Your task to perform on an android device: Look up the new steph curry shoes Image 0: 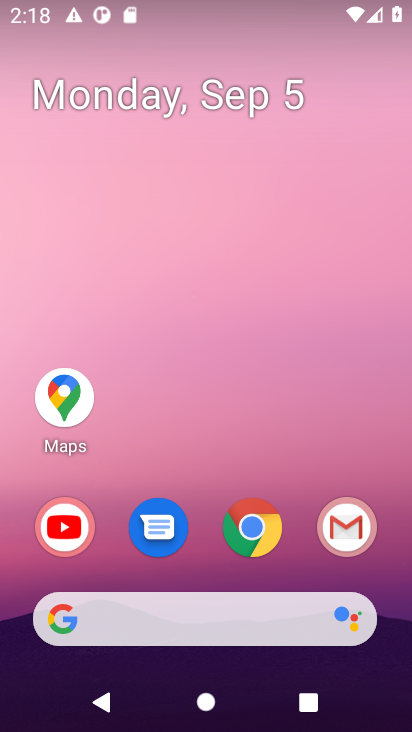
Step 0: click (244, 529)
Your task to perform on an android device: Look up the new steph curry shoes Image 1: 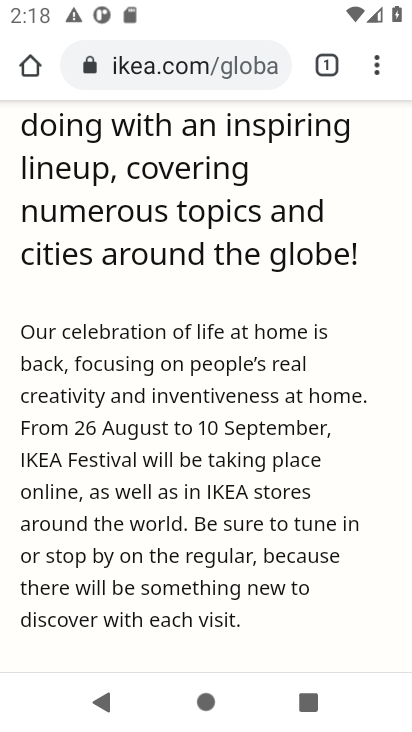
Step 1: click (253, 61)
Your task to perform on an android device: Look up the new steph curry shoes Image 2: 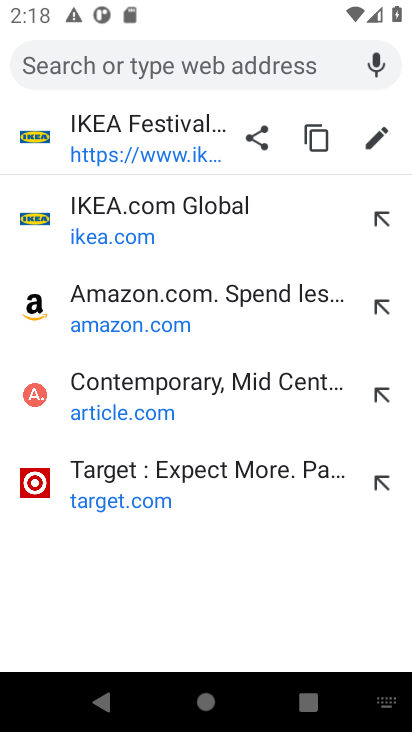
Step 2: type "the new steph curry shoes"
Your task to perform on an android device: Look up the new steph curry shoes Image 3: 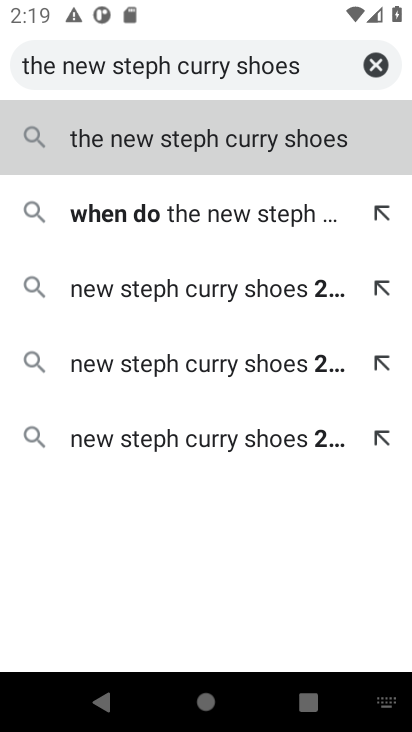
Step 3: click (268, 134)
Your task to perform on an android device: Look up the new steph curry shoes Image 4: 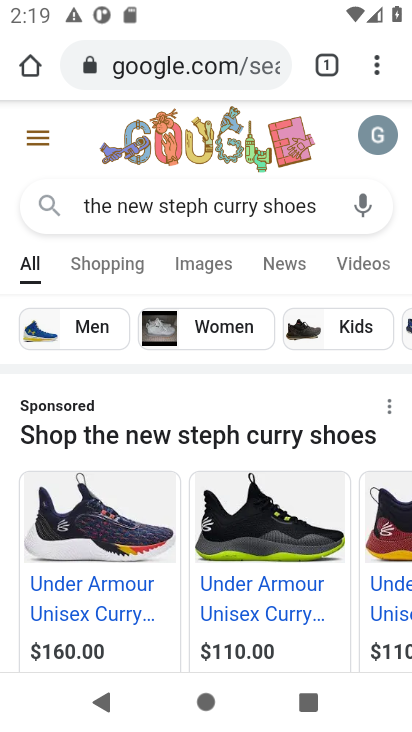
Step 4: task complete